Your task to perform on an android device: Open calendar and show me the fourth week of next month Image 0: 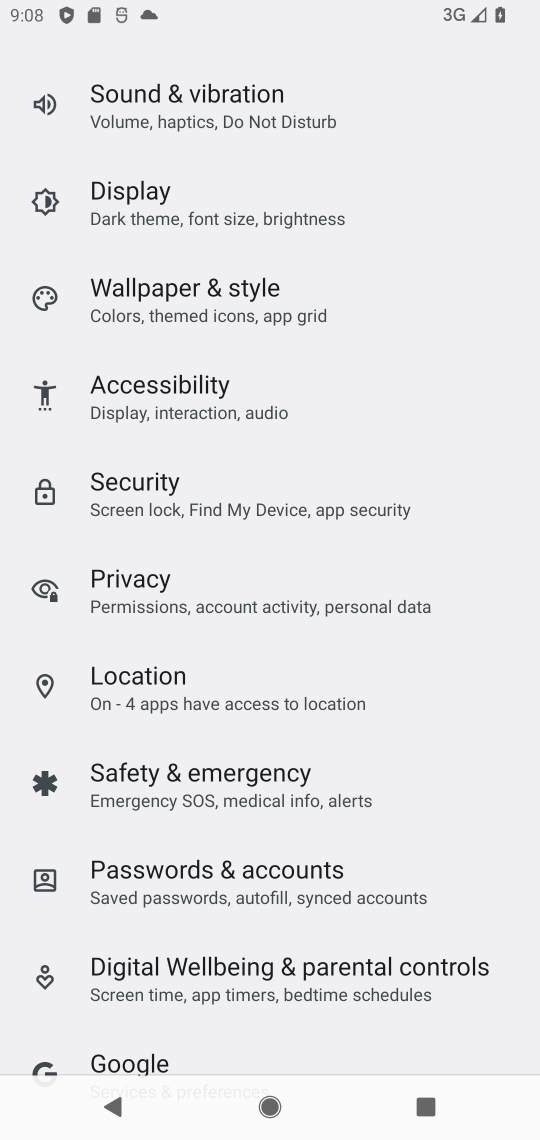
Step 0: press home button
Your task to perform on an android device: Open calendar and show me the fourth week of next month Image 1: 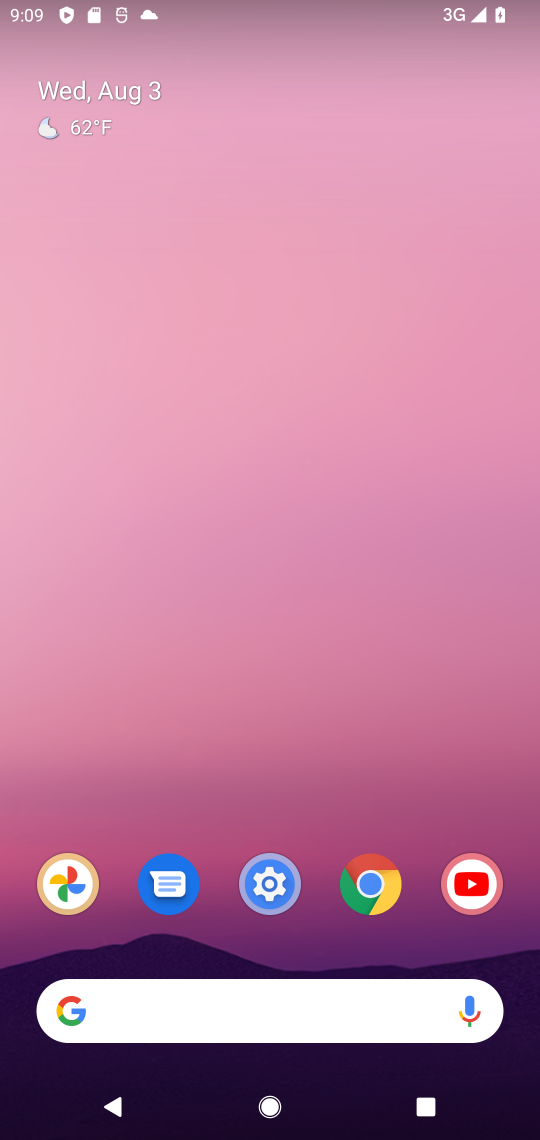
Step 1: drag from (254, 931) to (458, 328)
Your task to perform on an android device: Open calendar and show me the fourth week of next month Image 2: 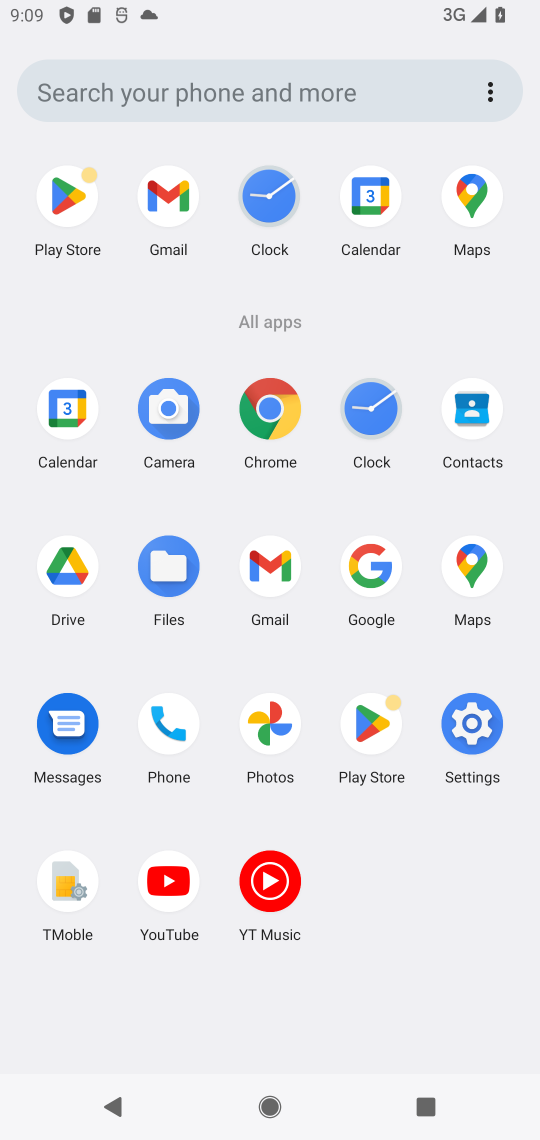
Step 2: click (70, 420)
Your task to perform on an android device: Open calendar and show me the fourth week of next month Image 3: 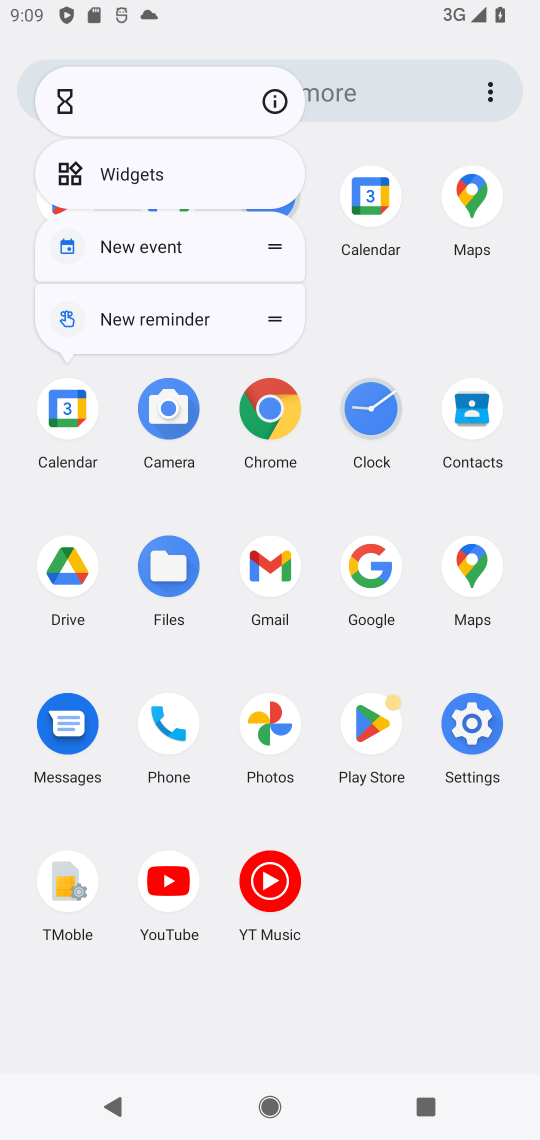
Step 3: click (270, 110)
Your task to perform on an android device: Open calendar and show me the fourth week of next month Image 4: 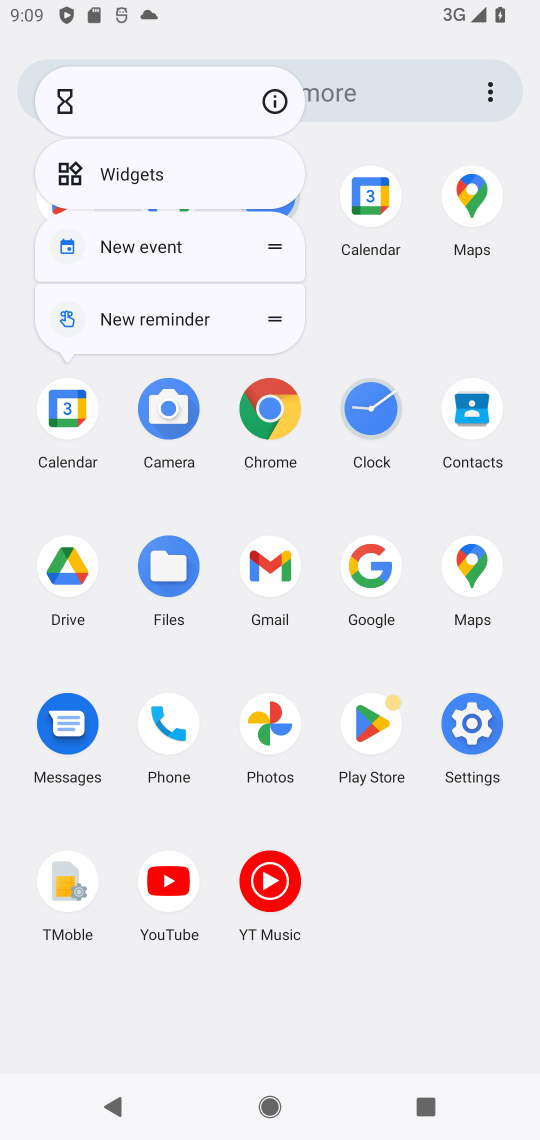
Step 4: click (273, 100)
Your task to perform on an android device: Open calendar and show me the fourth week of next month Image 5: 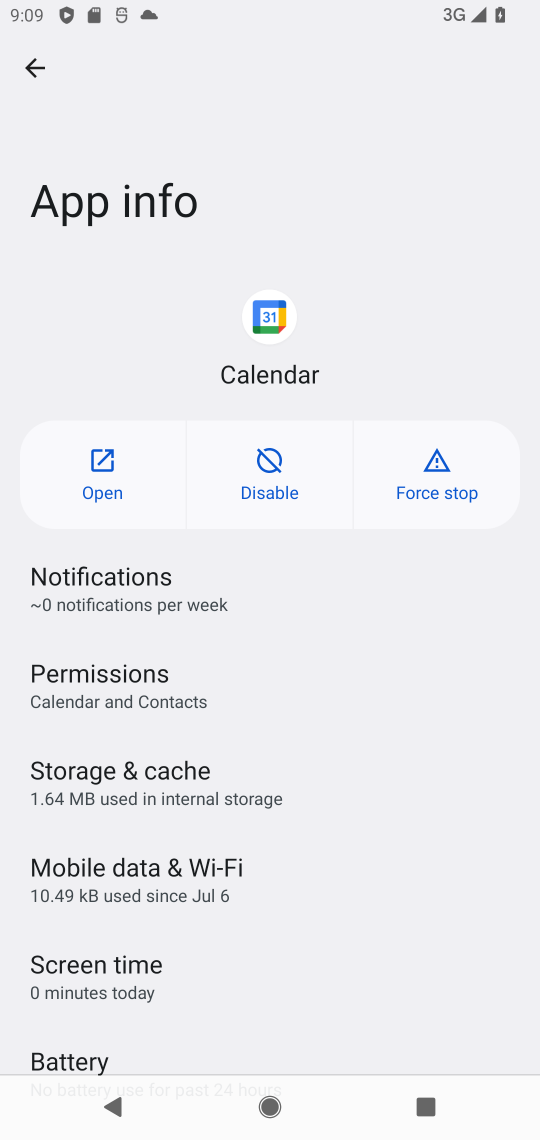
Step 5: click (111, 459)
Your task to perform on an android device: Open calendar and show me the fourth week of next month Image 6: 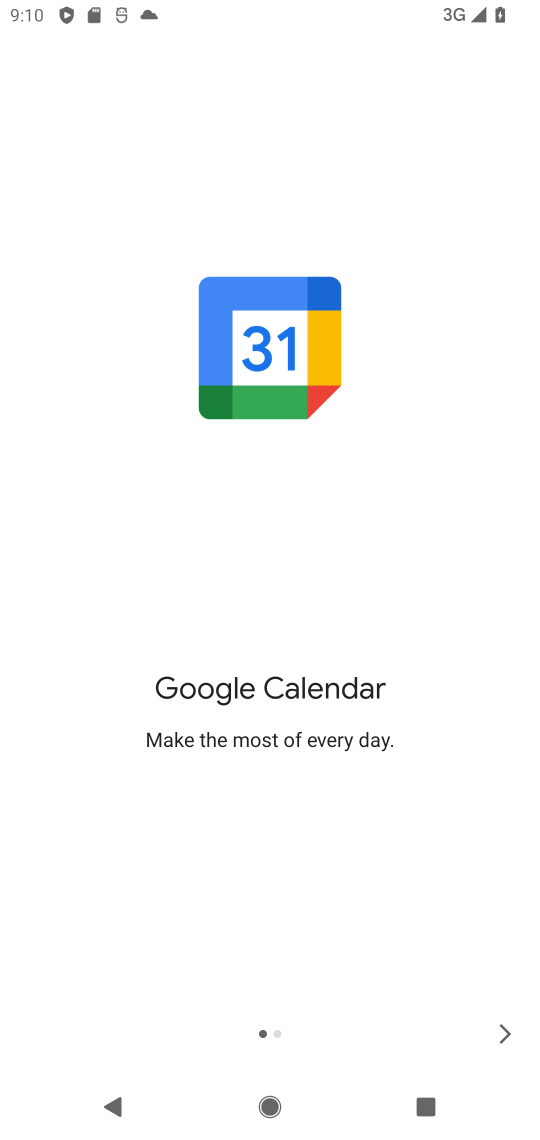
Step 6: drag from (329, 957) to (405, 520)
Your task to perform on an android device: Open calendar and show me the fourth week of next month Image 7: 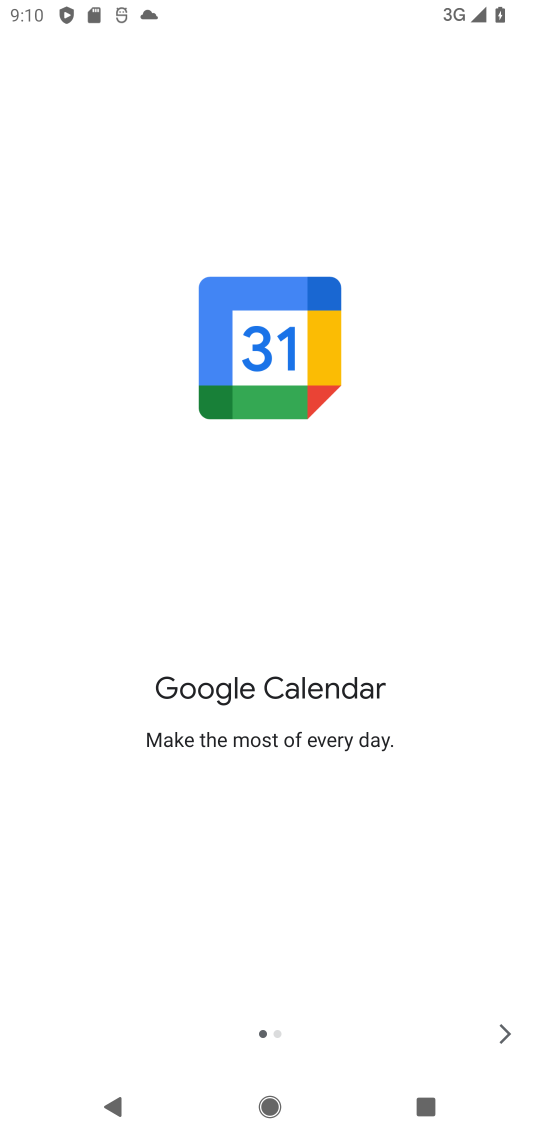
Step 7: click (503, 1025)
Your task to perform on an android device: Open calendar and show me the fourth week of next month Image 8: 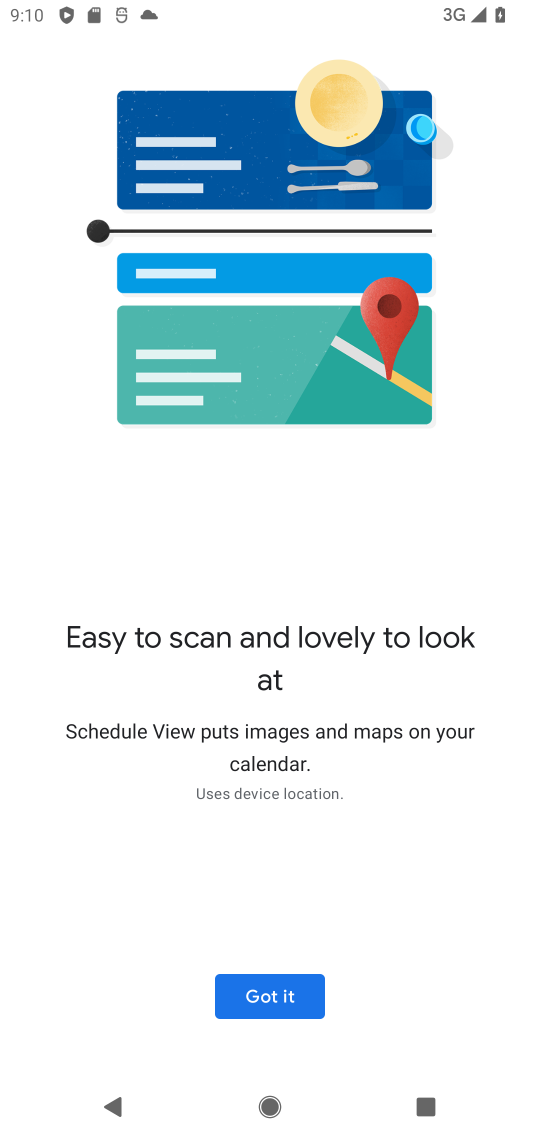
Step 8: click (501, 1025)
Your task to perform on an android device: Open calendar and show me the fourth week of next month Image 9: 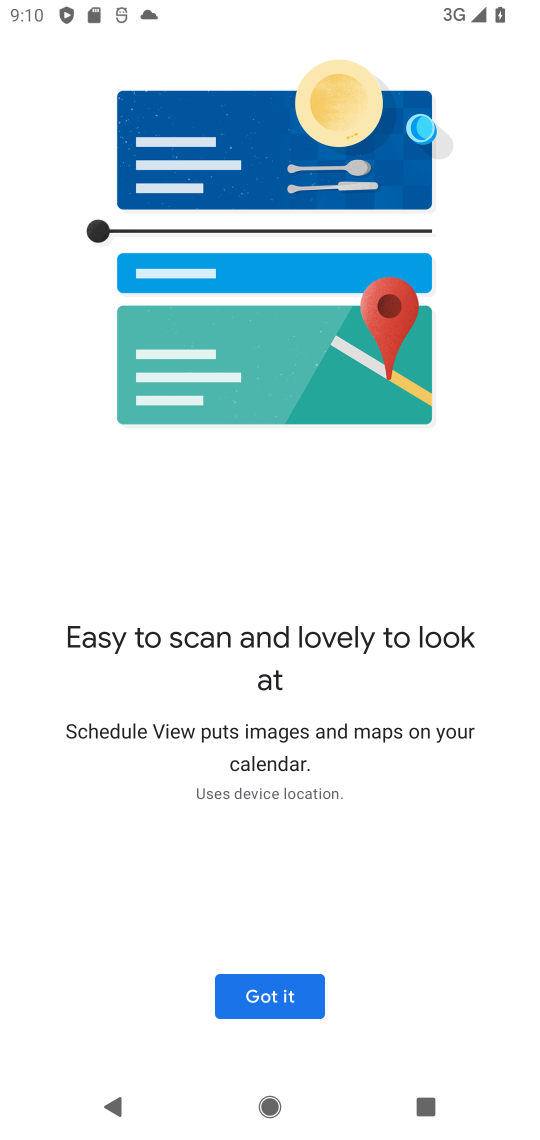
Step 9: click (501, 1025)
Your task to perform on an android device: Open calendar and show me the fourth week of next month Image 10: 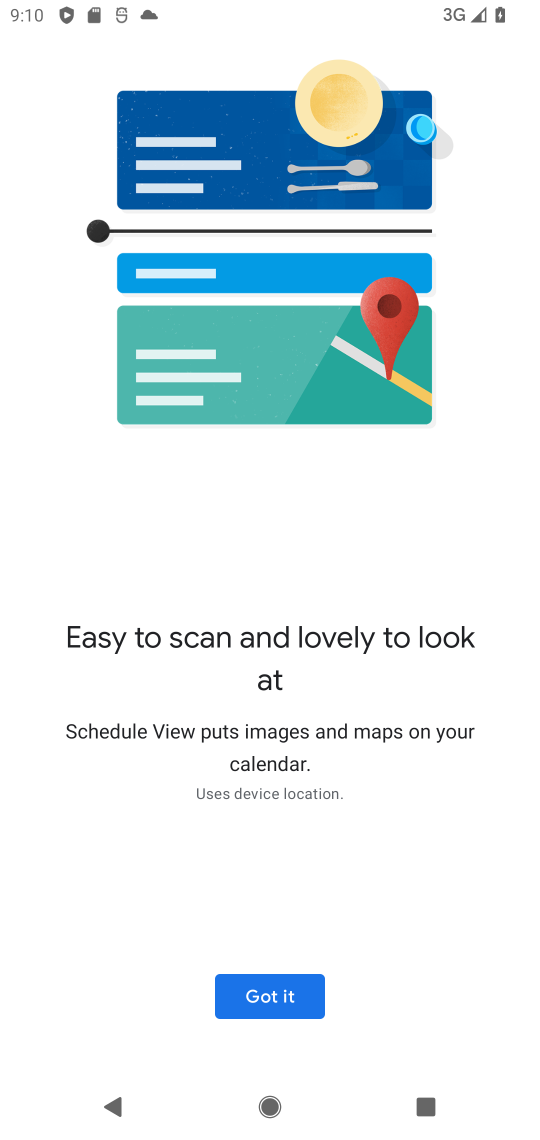
Step 10: drag from (275, 898) to (496, 344)
Your task to perform on an android device: Open calendar and show me the fourth week of next month Image 11: 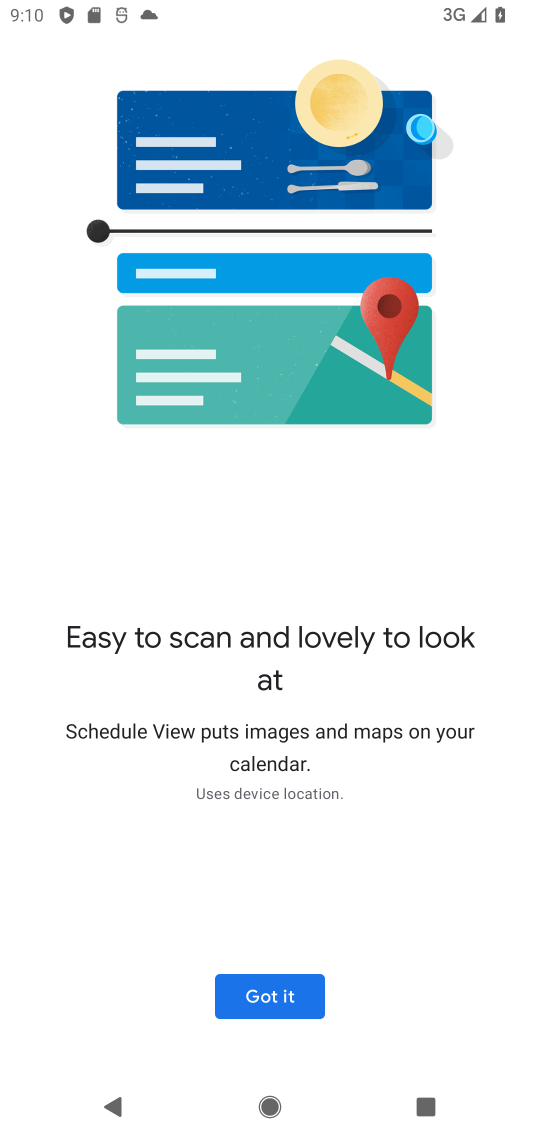
Step 11: click (279, 1017)
Your task to perform on an android device: Open calendar and show me the fourth week of next month Image 12: 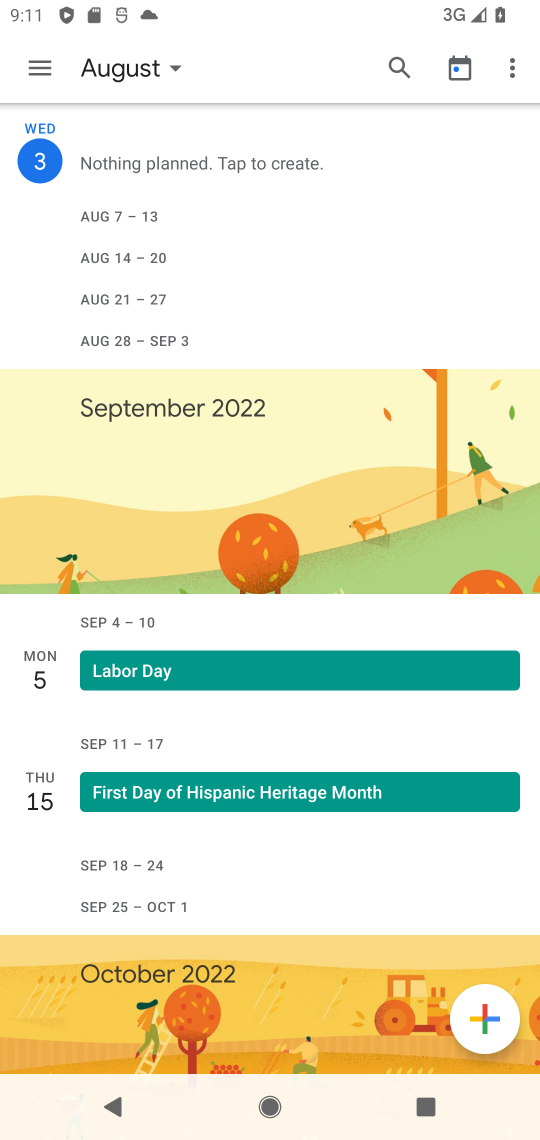
Step 12: drag from (205, 788) to (308, 288)
Your task to perform on an android device: Open calendar and show me the fourth week of next month Image 13: 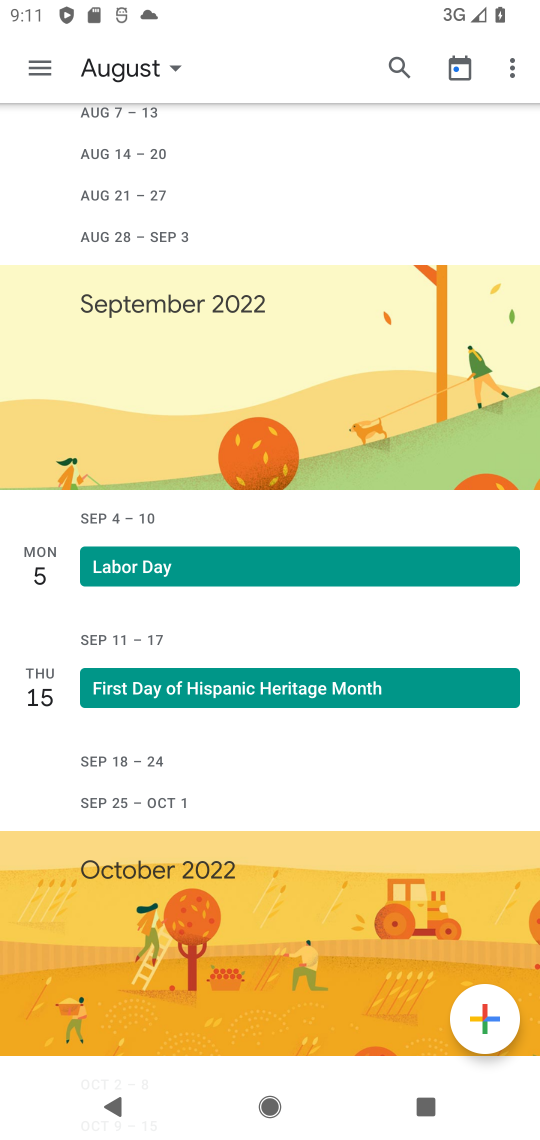
Step 13: drag from (250, 897) to (284, 395)
Your task to perform on an android device: Open calendar and show me the fourth week of next month Image 14: 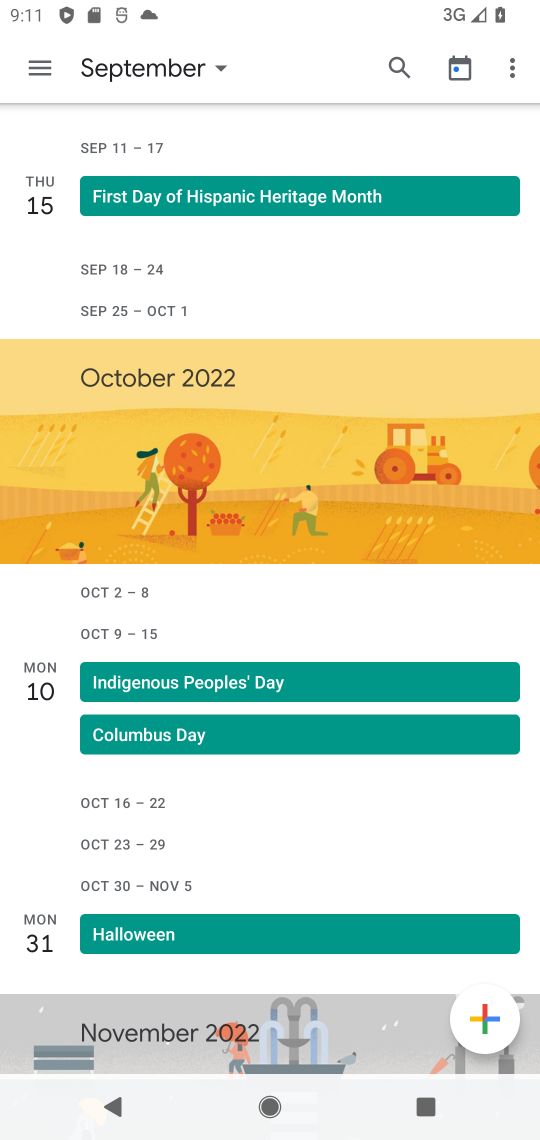
Step 14: drag from (327, 251) to (377, 888)
Your task to perform on an android device: Open calendar and show me the fourth week of next month Image 15: 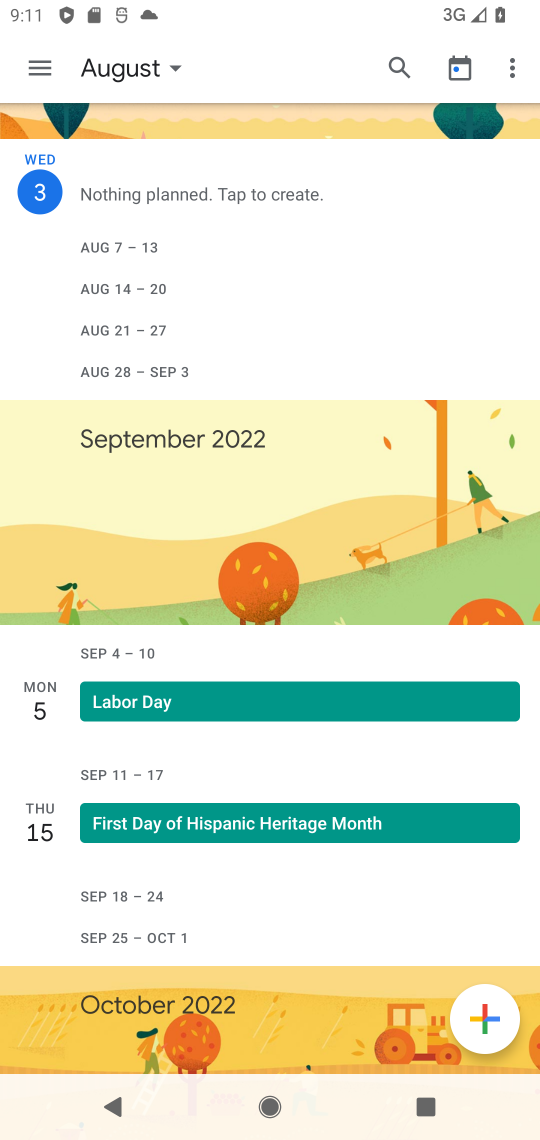
Step 15: click (467, 60)
Your task to perform on an android device: Open calendar and show me the fourth week of next month Image 16: 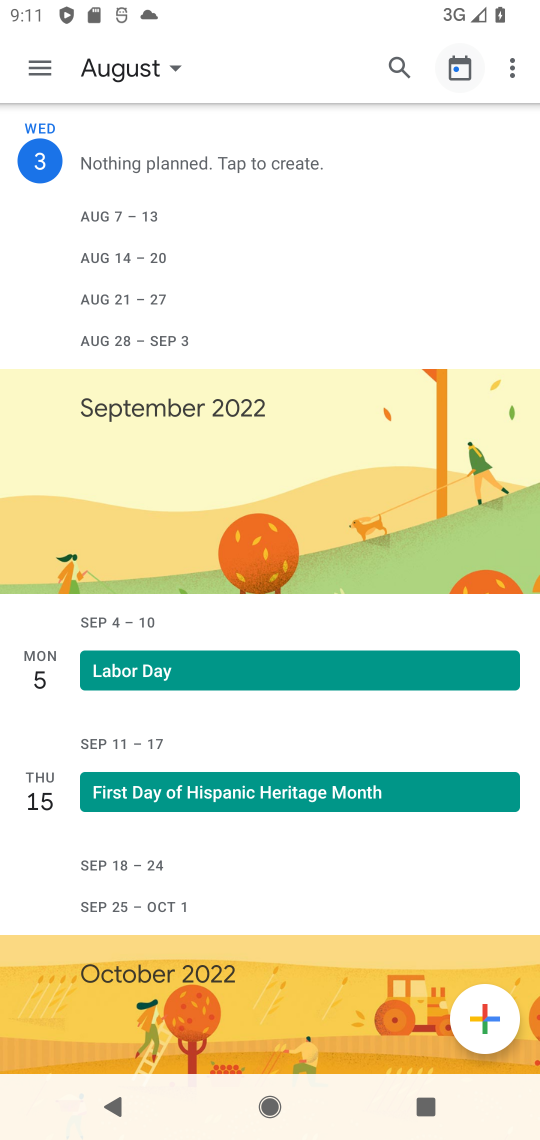
Step 16: click (176, 70)
Your task to perform on an android device: Open calendar and show me the fourth week of next month Image 17: 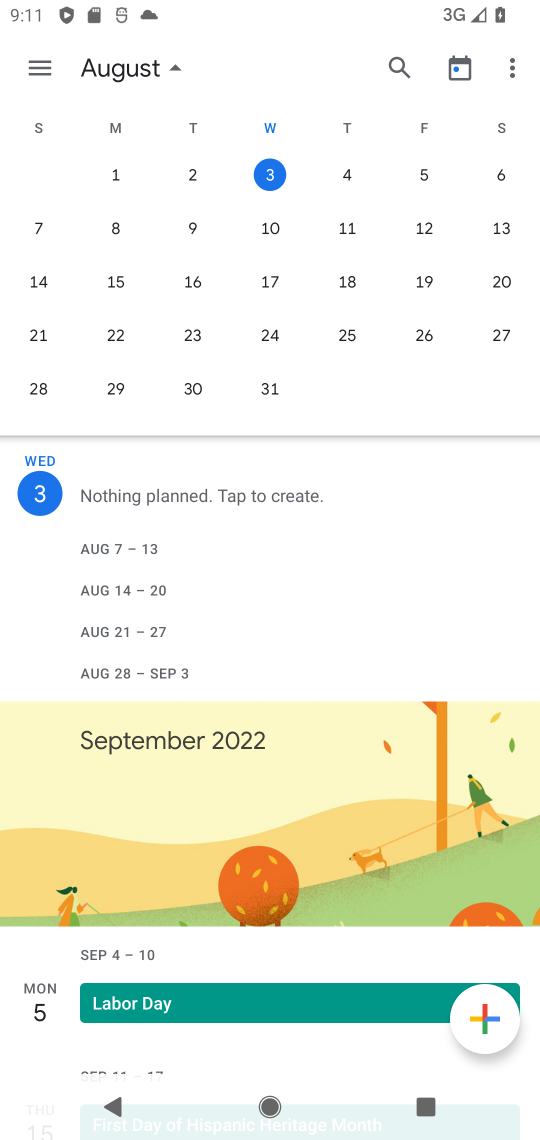
Step 17: drag from (445, 309) to (5, 278)
Your task to perform on an android device: Open calendar and show me the fourth week of next month Image 18: 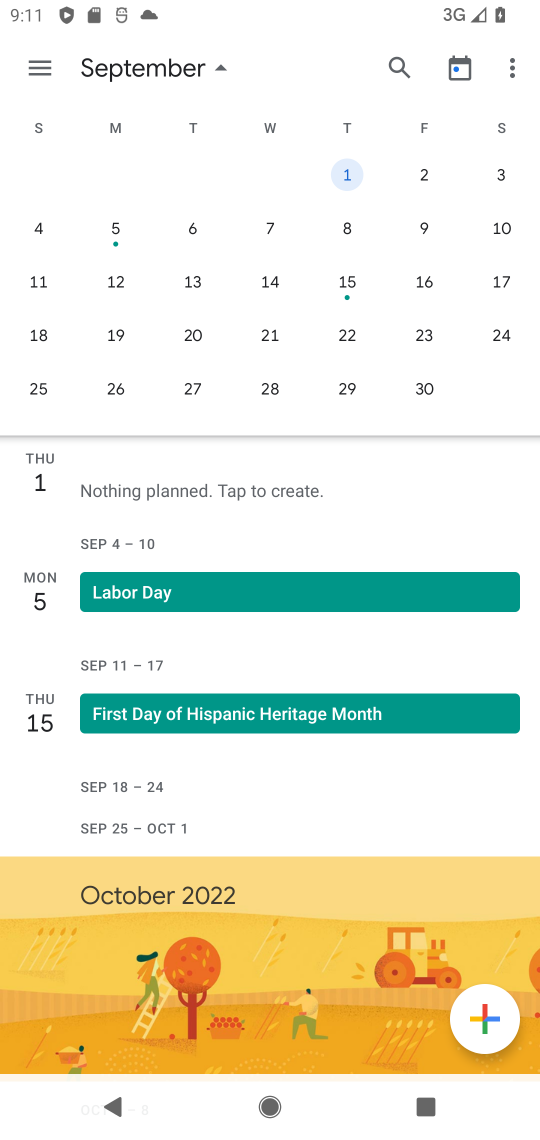
Step 18: click (425, 177)
Your task to perform on an android device: Open calendar and show me the fourth week of next month Image 19: 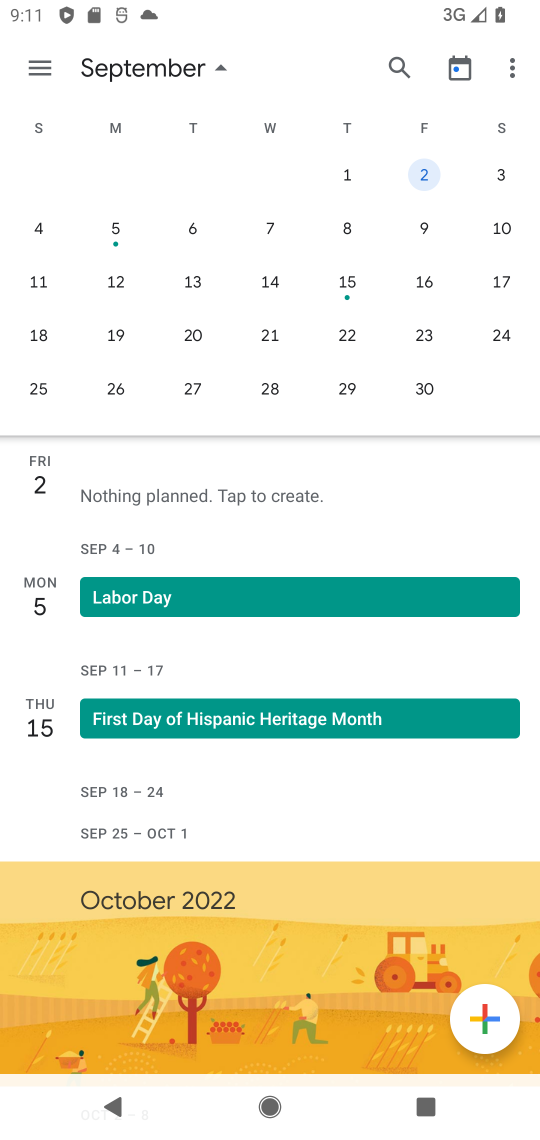
Step 19: task complete